Your task to perform on an android device: change the clock display to analog Image 0: 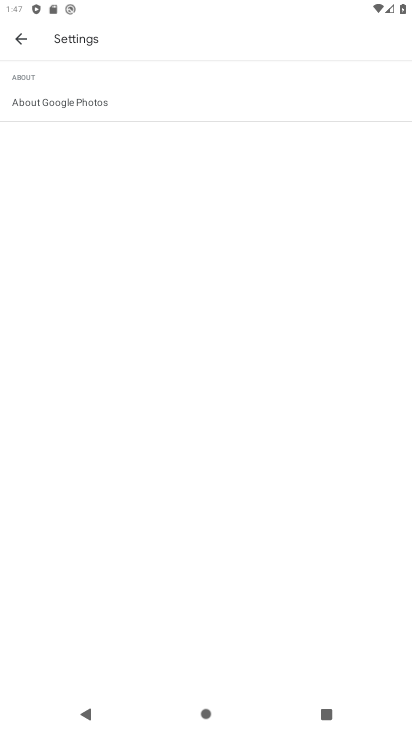
Step 0: press home button
Your task to perform on an android device: change the clock display to analog Image 1: 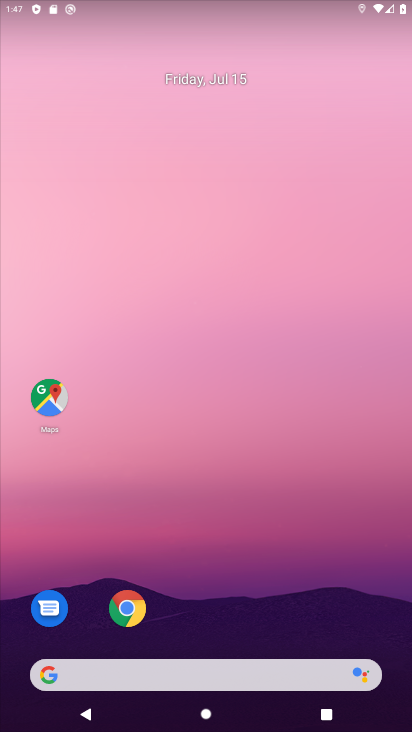
Step 1: drag from (199, 666) to (214, 143)
Your task to perform on an android device: change the clock display to analog Image 2: 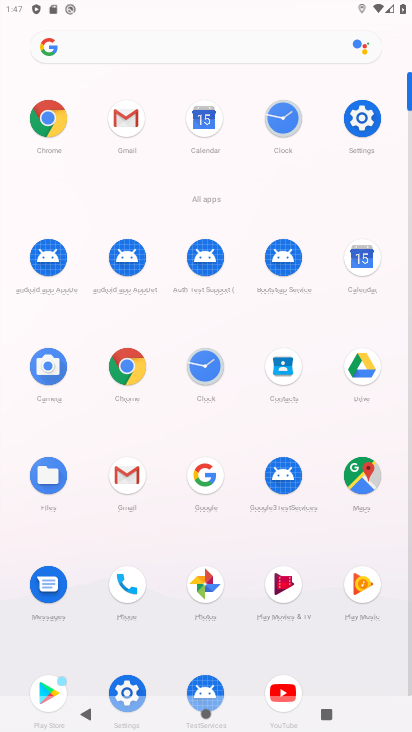
Step 2: click (196, 372)
Your task to perform on an android device: change the clock display to analog Image 3: 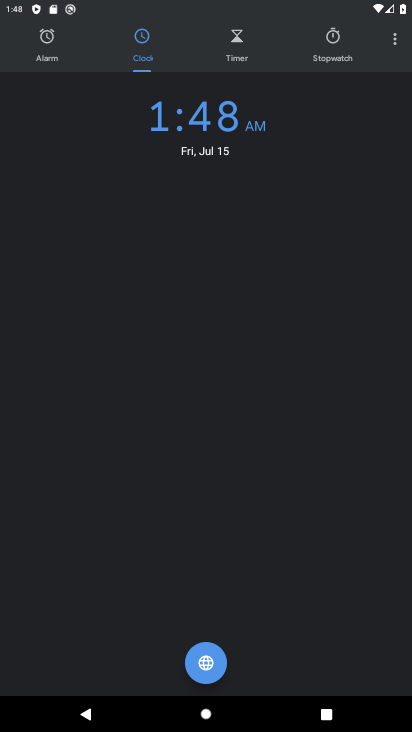
Step 3: click (388, 40)
Your task to perform on an android device: change the clock display to analog Image 4: 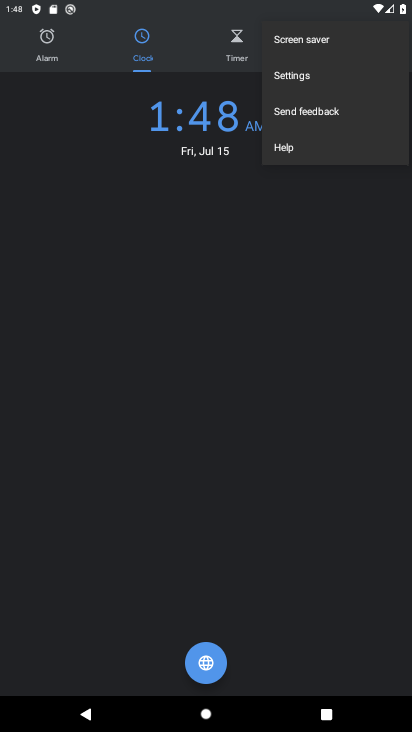
Step 4: click (312, 79)
Your task to perform on an android device: change the clock display to analog Image 5: 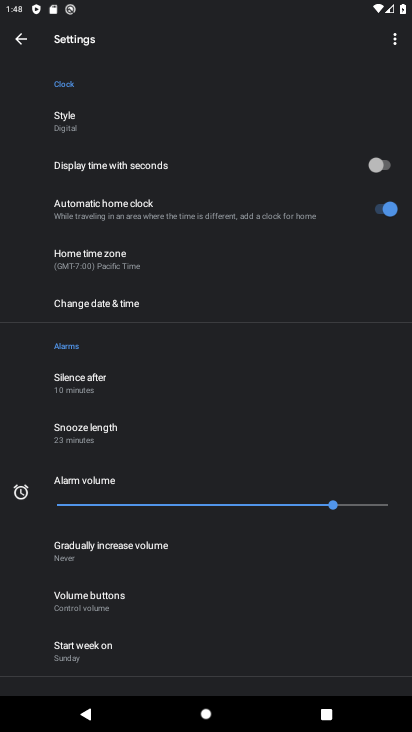
Step 5: click (144, 128)
Your task to perform on an android device: change the clock display to analog Image 6: 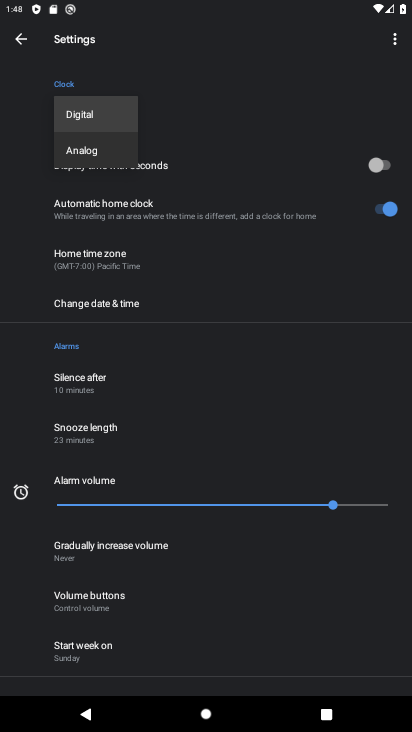
Step 6: click (105, 154)
Your task to perform on an android device: change the clock display to analog Image 7: 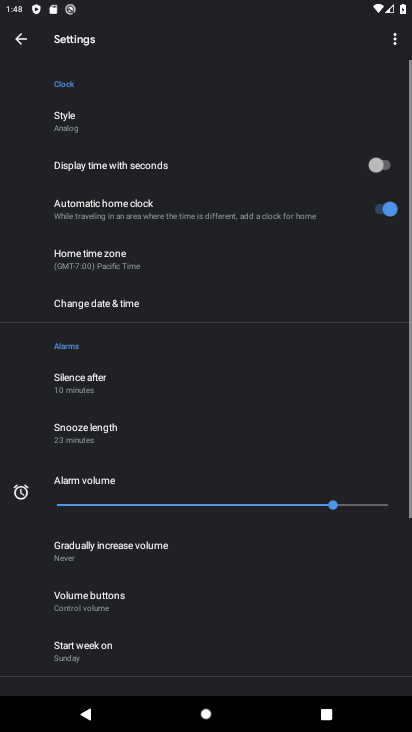
Step 7: task complete